Your task to perform on an android device: Open Google Chrome and open the bookmarks view Image 0: 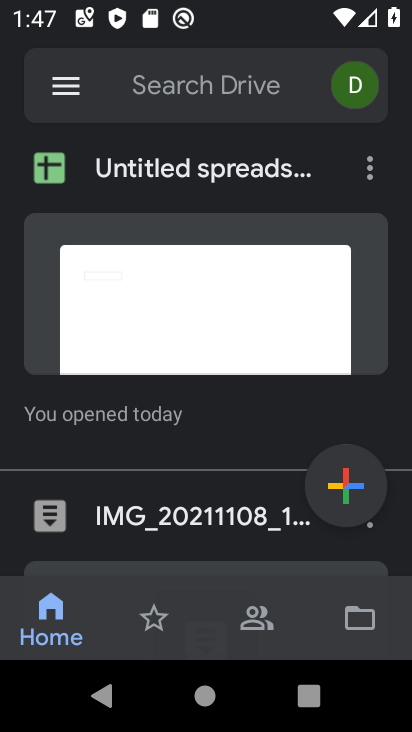
Step 0: press home button
Your task to perform on an android device: Open Google Chrome and open the bookmarks view Image 1: 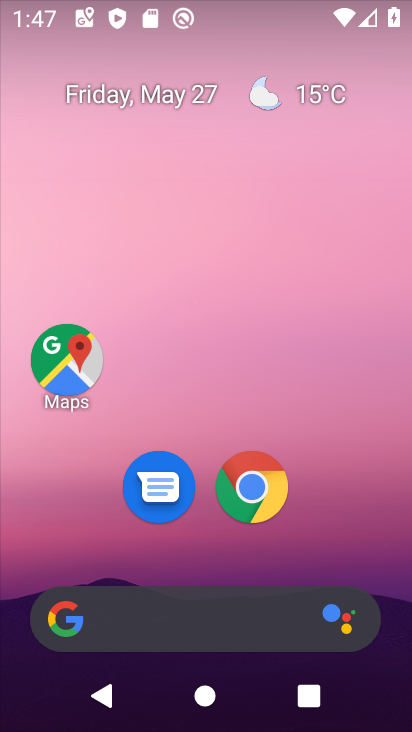
Step 1: click (245, 487)
Your task to perform on an android device: Open Google Chrome and open the bookmarks view Image 2: 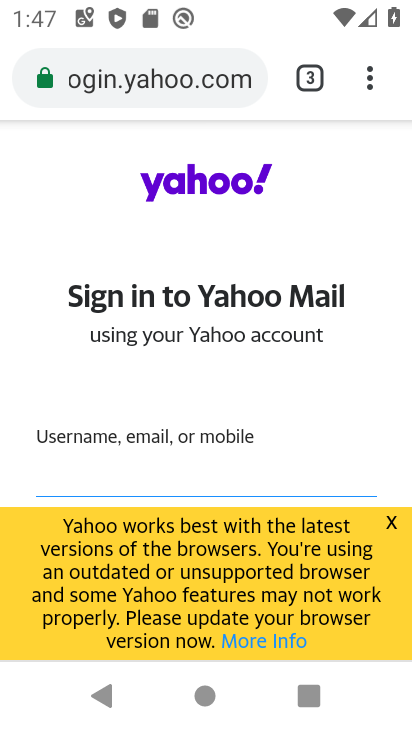
Step 2: click (377, 81)
Your task to perform on an android device: Open Google Chrome and open the bookmarks view Image 3: 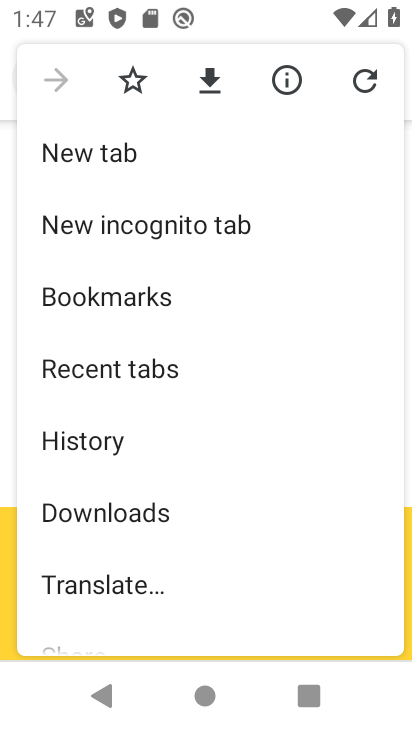
Step 3: click (137, 319)
Your task to perform on an android device: Open Google Chrome and open the bookmarks view Image 4: 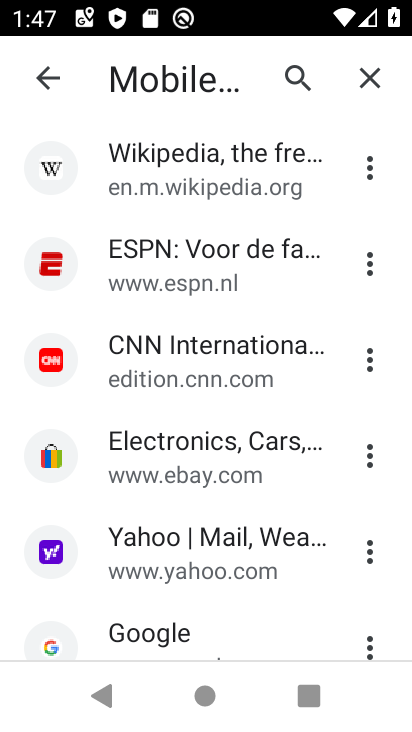
Step 4: task complete